Your task to perform on an android device: Open the map Image 0: 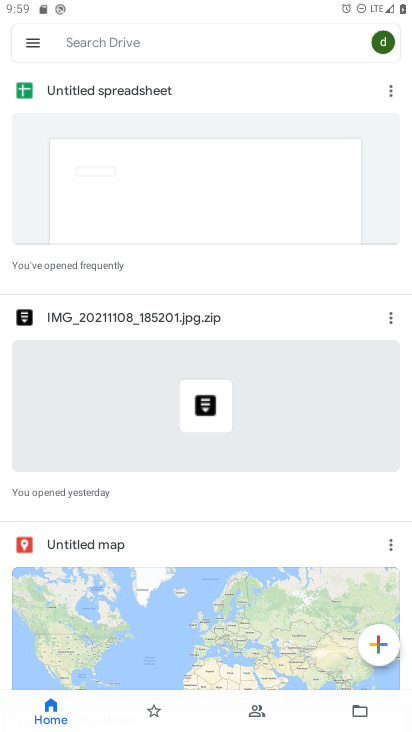
Step 0: press home button
Your task to perform on an android device: Open the map Image 1: 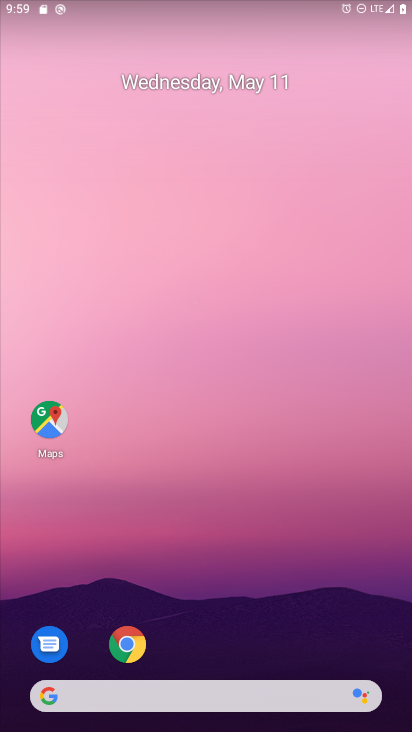
Step 1: click (43, 423)
Your task to perform on an android device: Open the map Image 2: 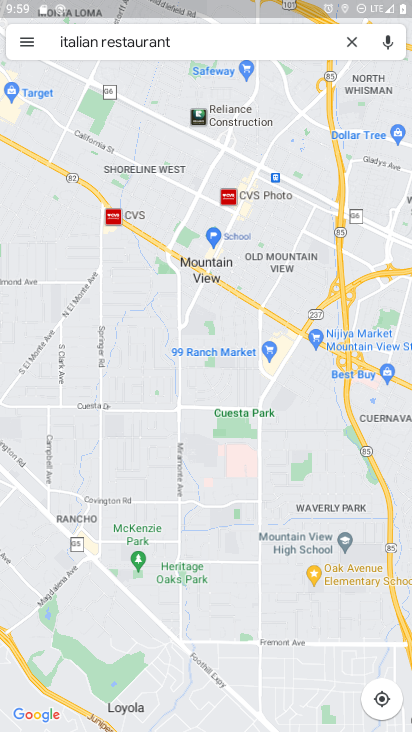
Step 2: task complete